Your task to perform on an android device: Open eBay Image 0: 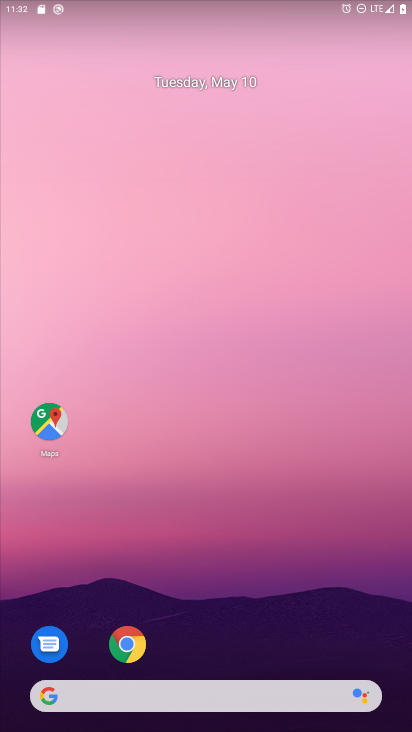
Step 0: drag from (189, 637) to (190, 341)
Your task to perform on an android device: Open eBay Image 1: 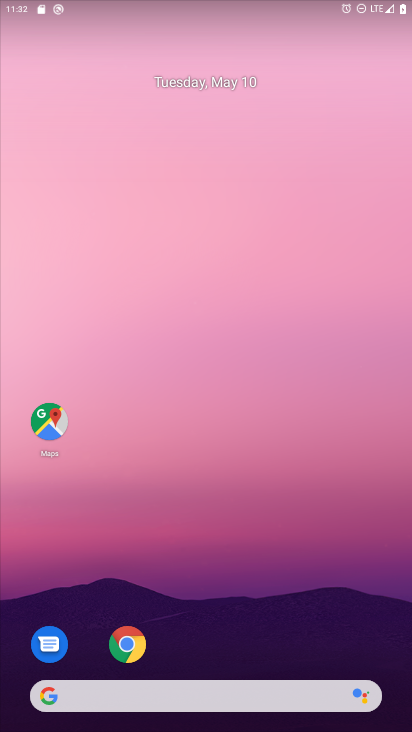
Step 1: drag from (193, 498) to (218, 144)
Your task to perform on an android device: Open eBay Image 2: 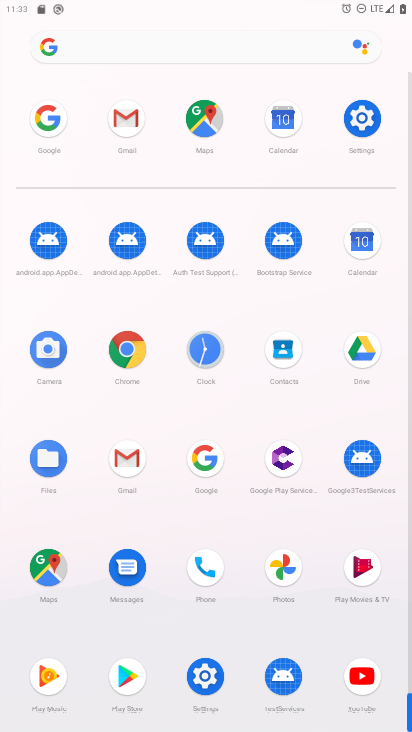
Step 2: click (132, 365)
Your task to perform on an android device: Open eBay Image 3: 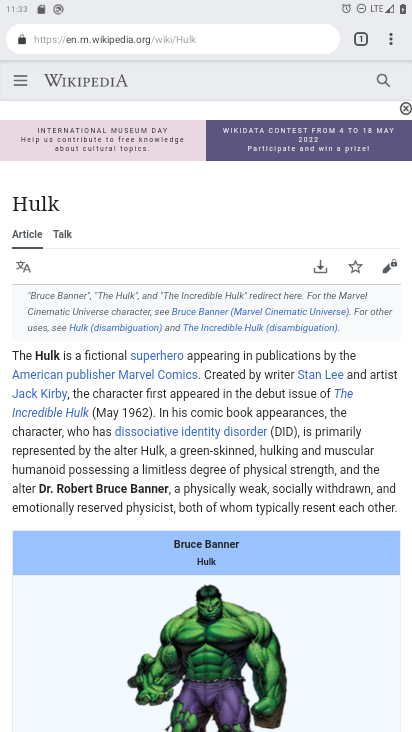
Step 3: click (310, 39)
Your task to perform on an android device: Open eBay Image 4: 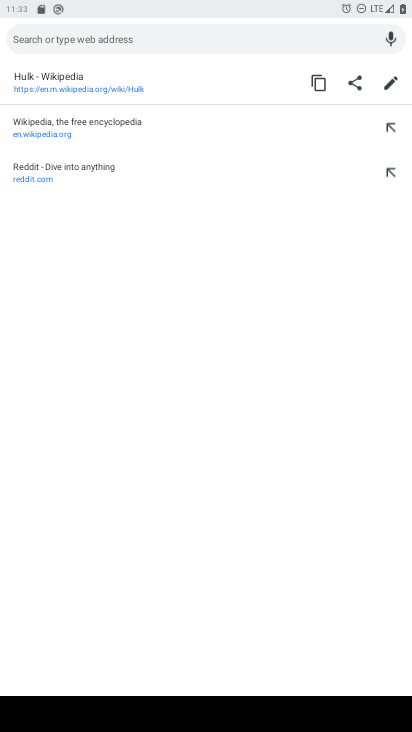
Step 4: type "ebay.com"
Your task to perform on an android device: Open eBay Image 5: 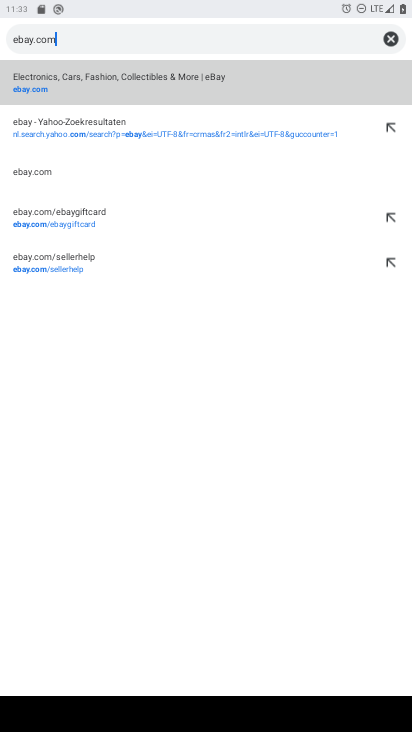
Step 5: click (265, 86)
Your task to perform on an android device: Open eBay Image 6: 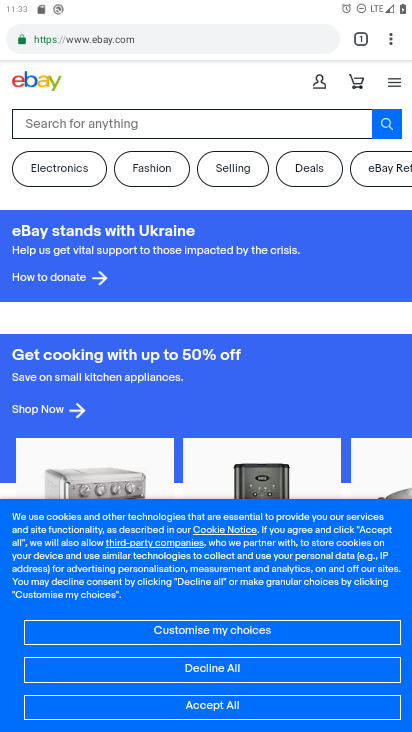
Step 6: task complete